Your task to perform on an android device: What is the news today? Image 0: 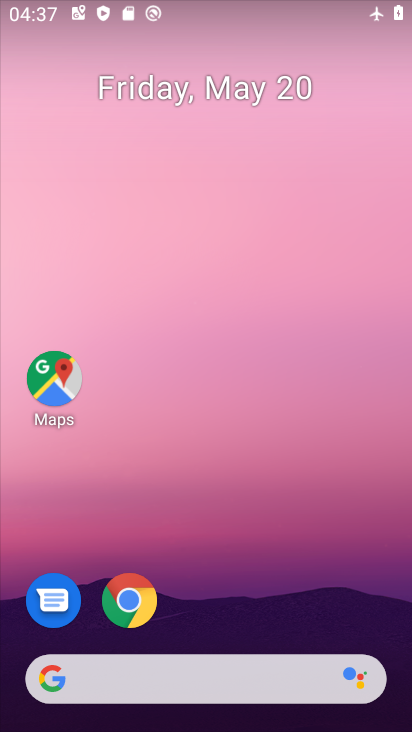
Step 0: drag from (240, 527) to (224, 47)
Your task to perform on an android device: What is the news today? Image 1: 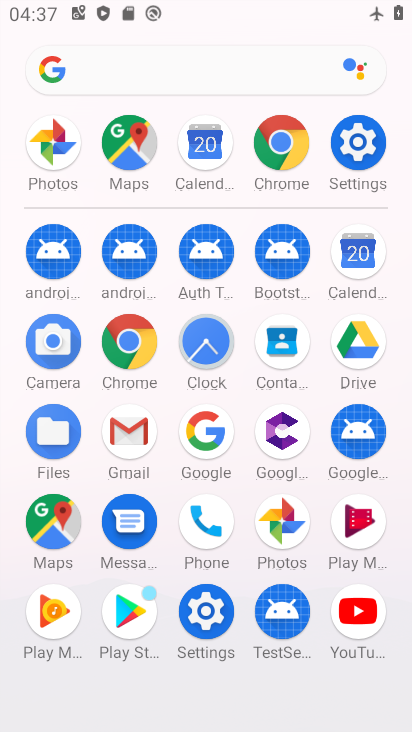
Step 1: drag from (10, 574) to (9, 269)
Your task to perform on an android device: What is the news today? Image 2: 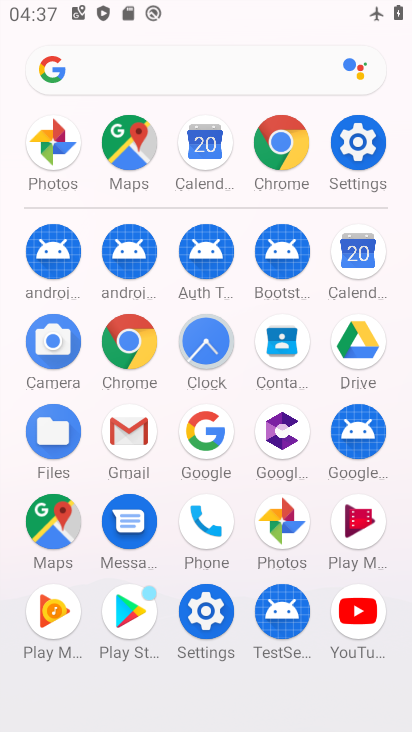
Step 2: click (126, 340)
Your task to perform on an android device: What is the news today? Image 3: 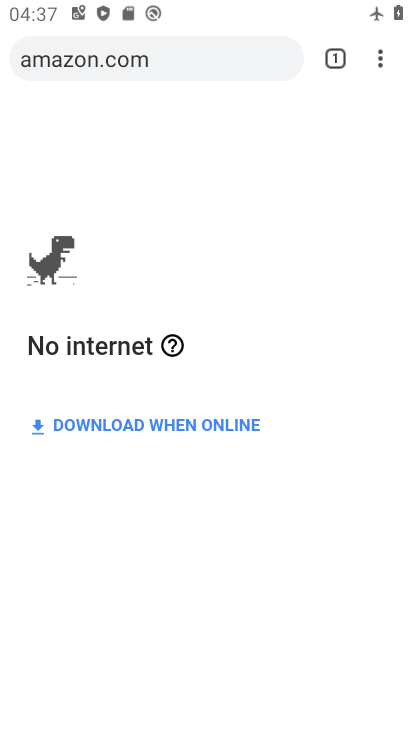
Step 3: click (187, 62)
Your task to perform on an android device: What is the news today? Image 4: 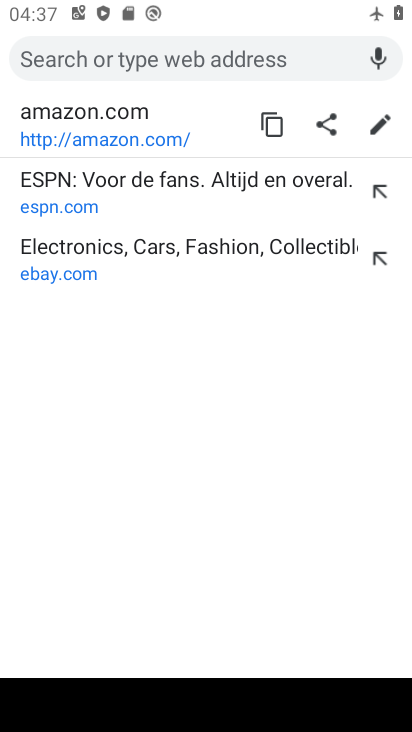
Step 4: type "What is the news today?"
Your task to perform on an android device: What is the news today? Image 5: 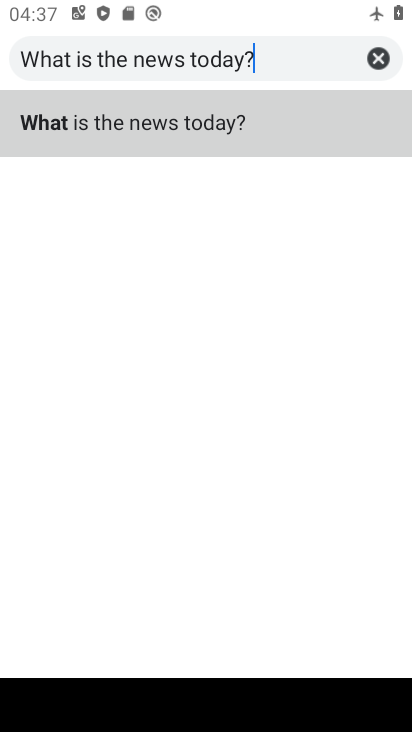
Step 5: type ""
Your task to perform on an android device: What is the news today? Image 6: 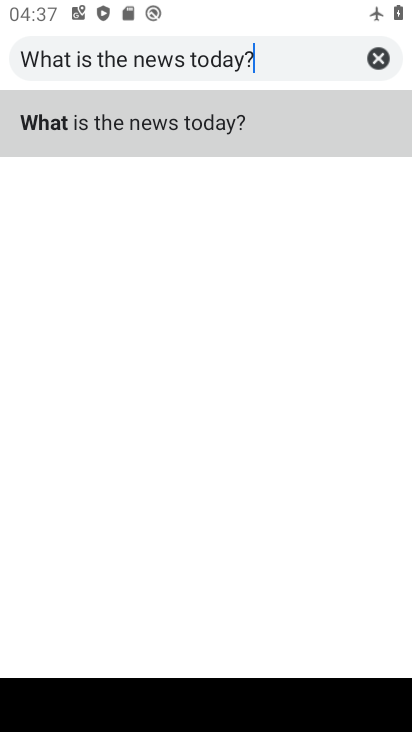
Step 6: click (248, 143)
Your task to perform on an android device: What is the news today? Image 7: 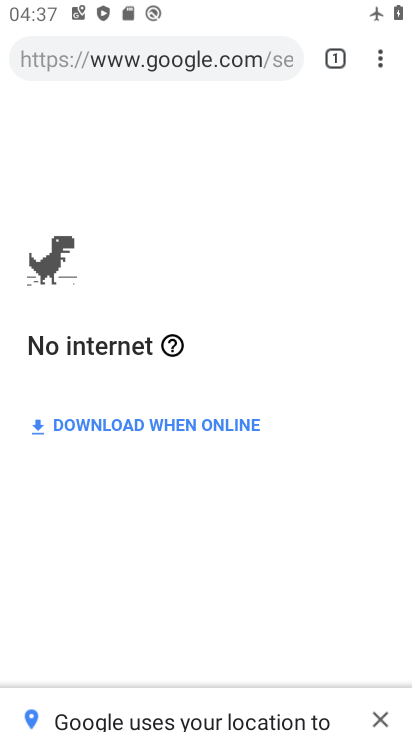
Step 7: drag from (262, 0) to (303, 391)
Your task to perform on an android device: What is the news today? Image 8: 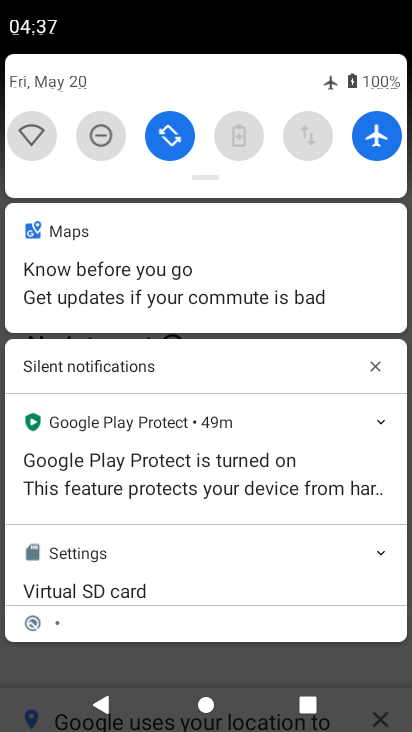
Step 8: click (25, 129)
Your task to perform on an android device: What is the news today? Image 9: 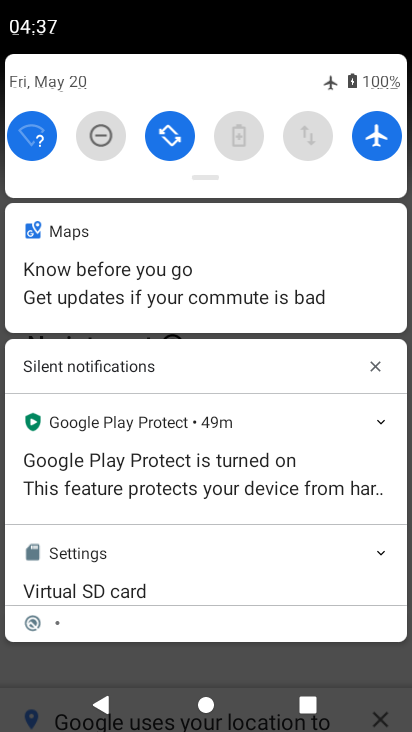
Step 9: drag from (67, 656) to (140, 182)
Your task to perform on an android device: What is the news today? Image 10: 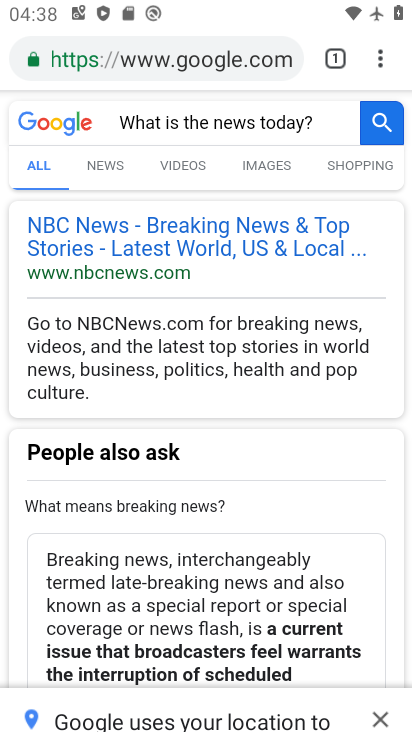
Step 10: click (111, 163)
Your task to perform on an android device: What is the news today? Image 11: 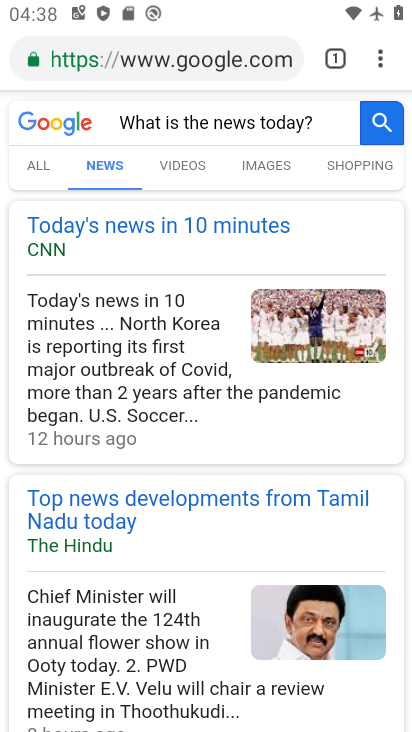
Step 11: task complete